Your task to perform on an android device: Open notification settings Image 0: 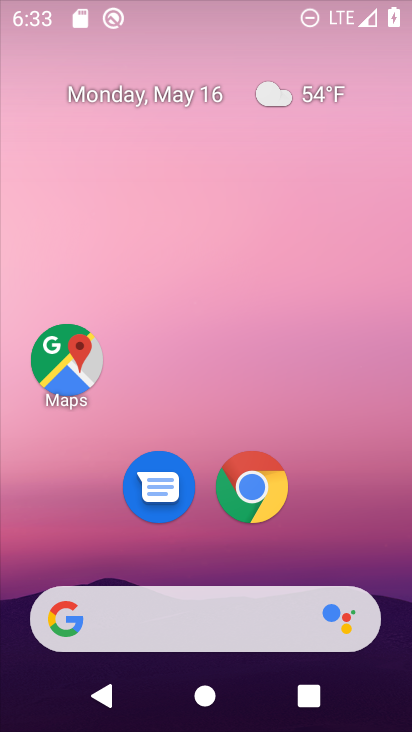
Step 0: click (250, 488)
Your task to perform on an android device: Open notification settings Image 1: 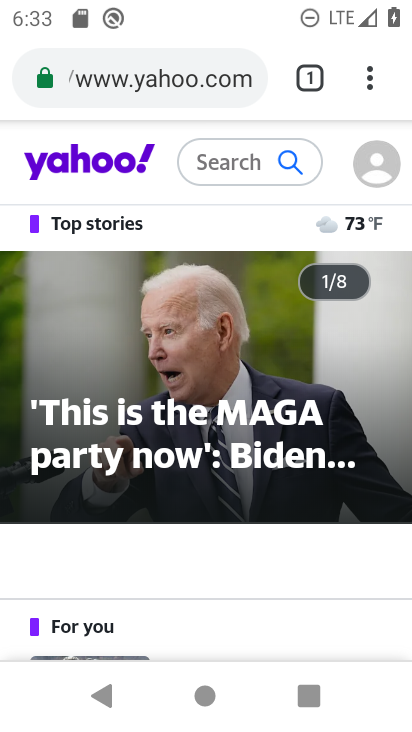
Step 1: press home button
Your task to perform on an android device: Open notification settings Image 2: 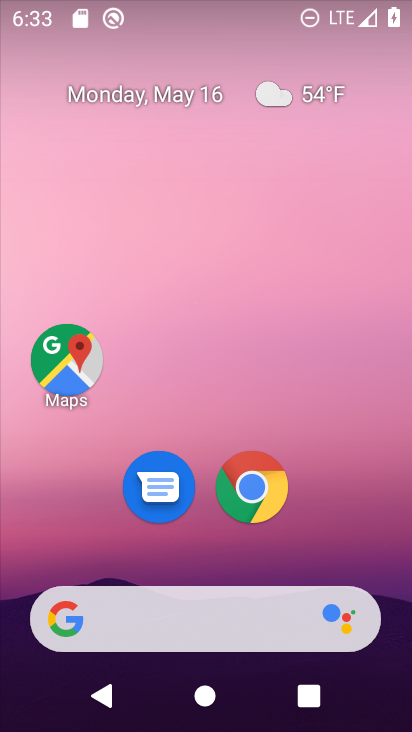
Step 2: drag from (170, 540) to (193, 351)
Your task to perform on an android device: Open notification settings Image 3: 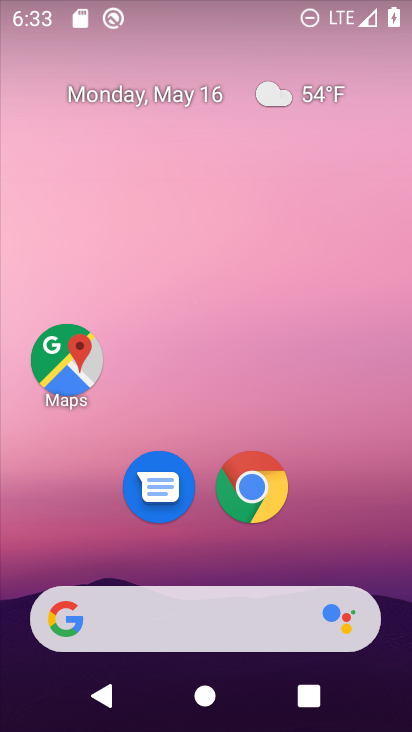
Step 3: drag from (205, 493) to (233, 270)
Your task to perform on an android device: Open notification settings Image 4: 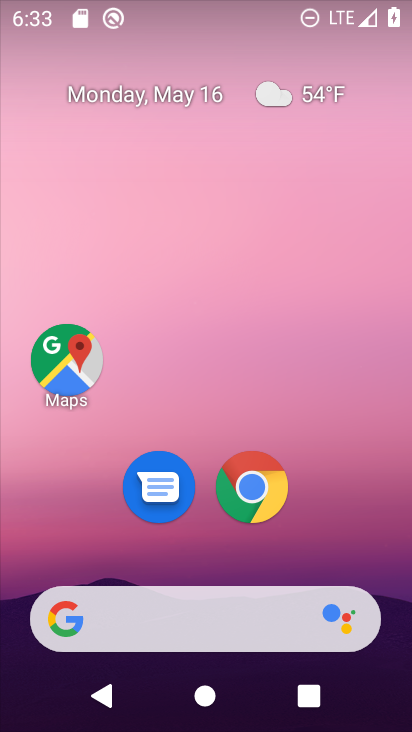
Step 4: drag from (181, 628) to (223, 271)
Your task to perform on an android device: Open notification settings Image 5: 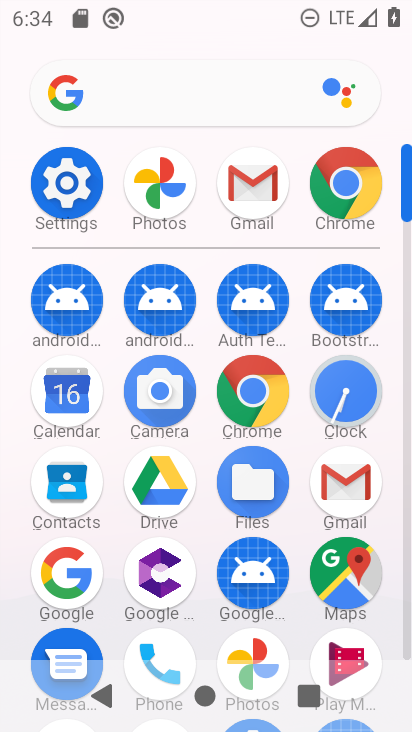
Step 5: click (51, 190)
Your task to perform on an android device: Open notification settings Image 6: 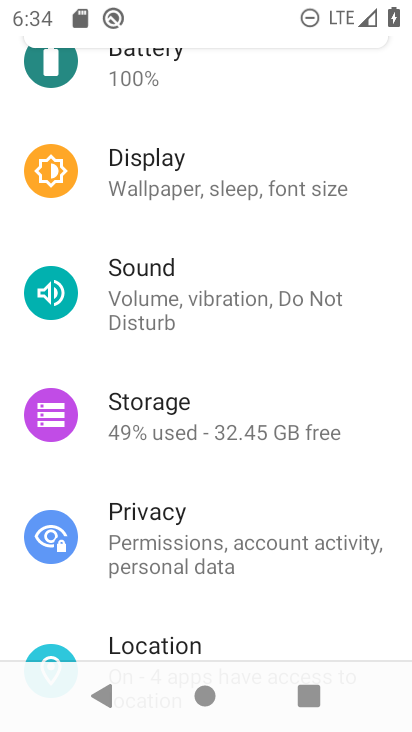
Step 6: drag from (220, 70) to (225, 525)
Your task to perform on an android device: Open notification settings Image 7: 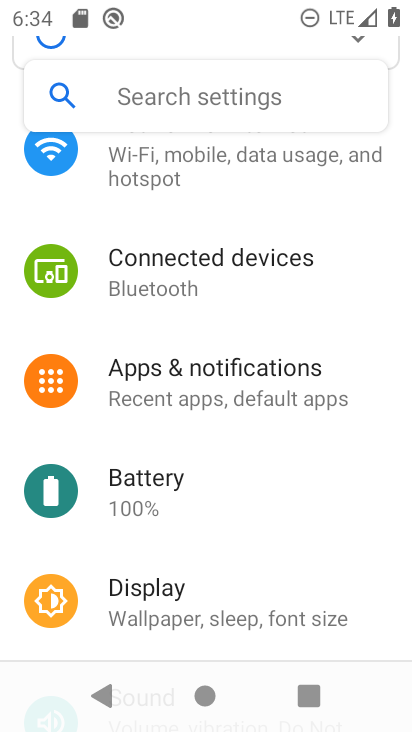
Step 7: drag from (169, 164) to (143, 530)
Your task to perform on an android device: Open notification settings Image 8: 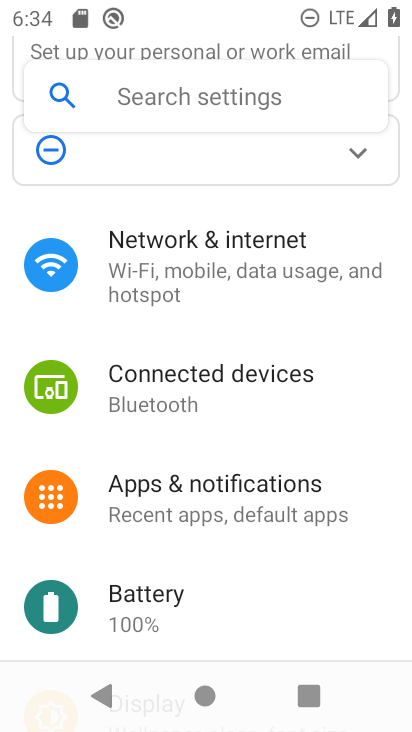
Step 8: click (143, 502)
Your task to perform on an android device: Open notification settings Image 9: 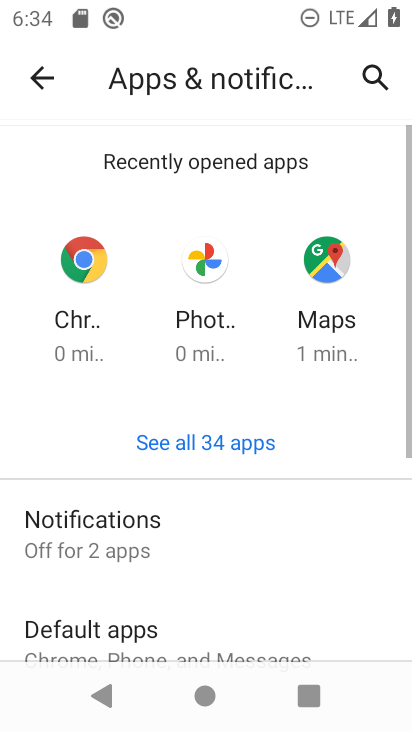
Step 9: drag from (225, 617) to (181, 158)
Your task to perform on an android device: Open notification settings Image 10: 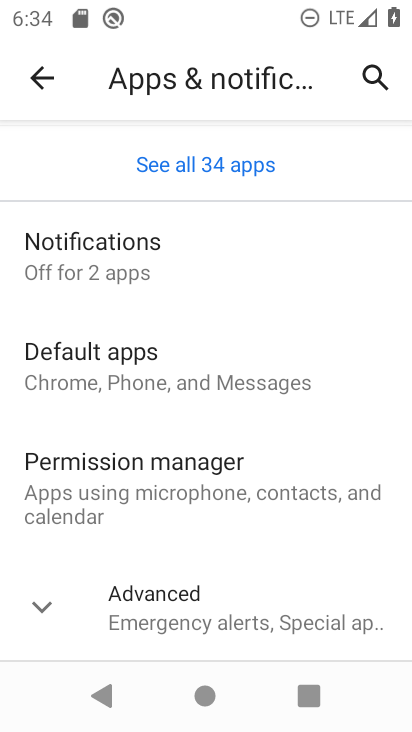
Step 10: click (146, 617)
Your task to perform on an android device: Open notification settings Image 11: 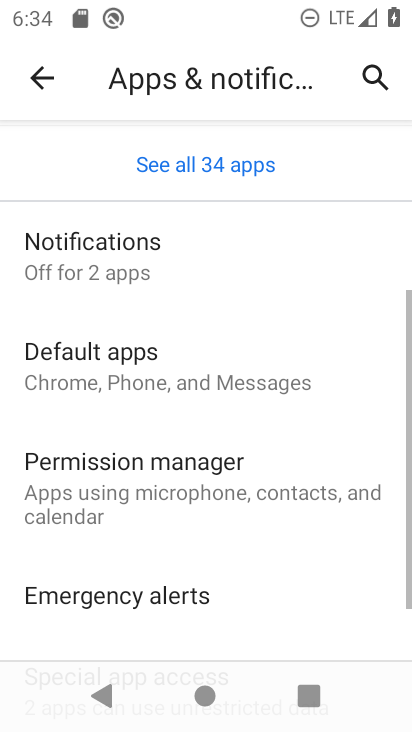
Step 11: task complete